Your task to perform on an android device: Search for pizza restaurants on Maps Image 0: 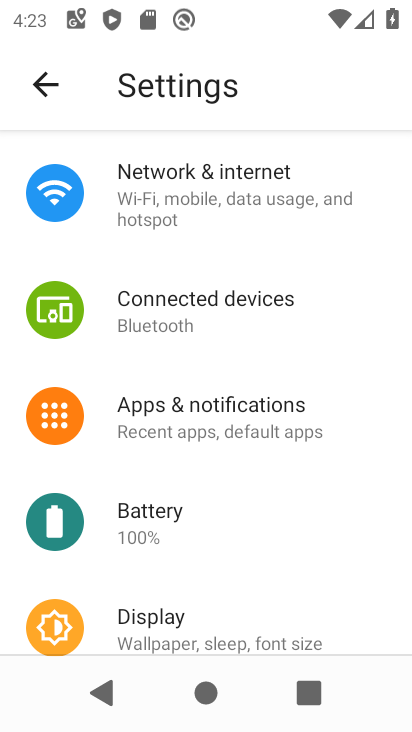
Step 0: press home button
Your task to perform on an android device: Search for pizza restaurants on Maps Image 1: 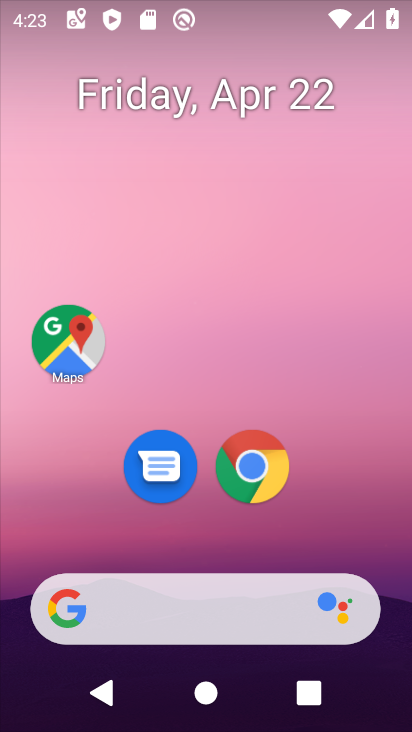
Step 1: drag from (402, 543) to (310, 220)
Your task to perform on an android device: Search for pizza restaurants on Maps Image 2: 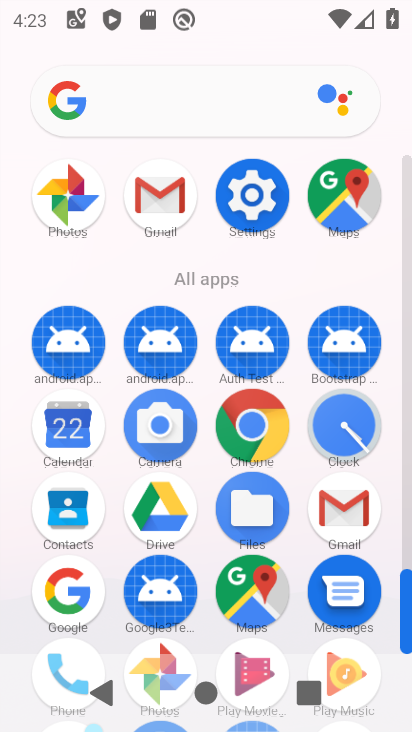
Step 2: click (257, 594)
Your task to perform on an android device: Search for pizza restaurants on Maps Image 3: 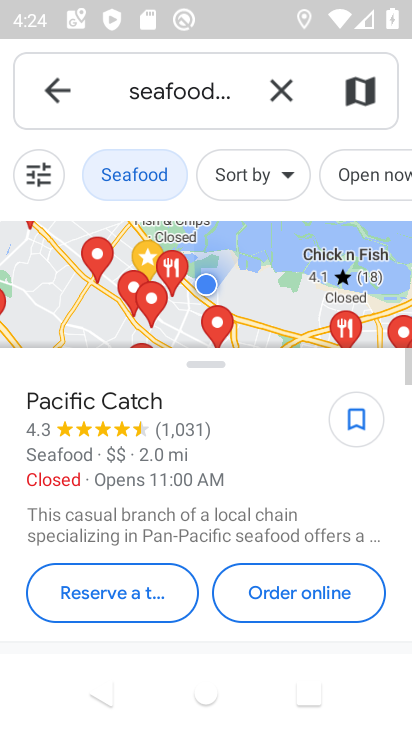
Step 3: click (286, 99)
Your task to perform on an android device: Search for pizza restaurants on Maps Image 4: 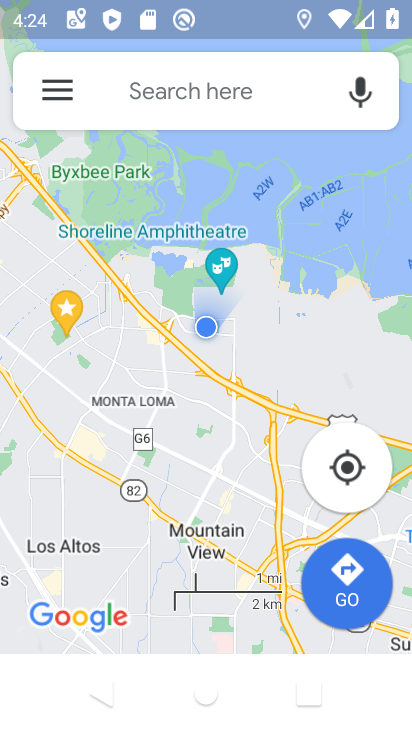
Step 4: click (194, 90)
Your task to perform on an android device: Search for pizza restaurants on Maps Image 5: 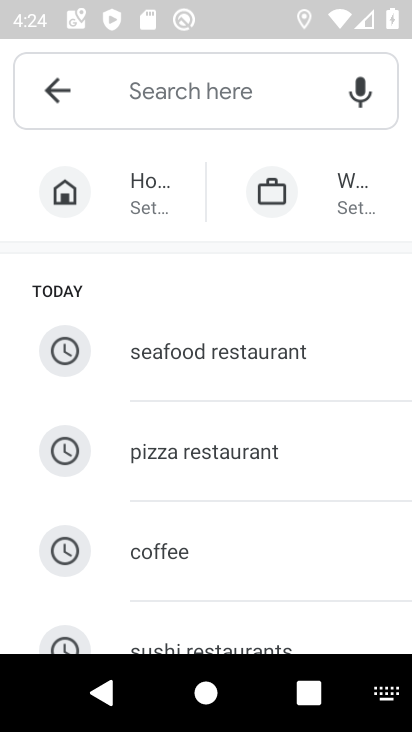
Step 5: click (233, 453)
Your task to perform on an android device: Search for pizza restaurants on Maps Image 6: 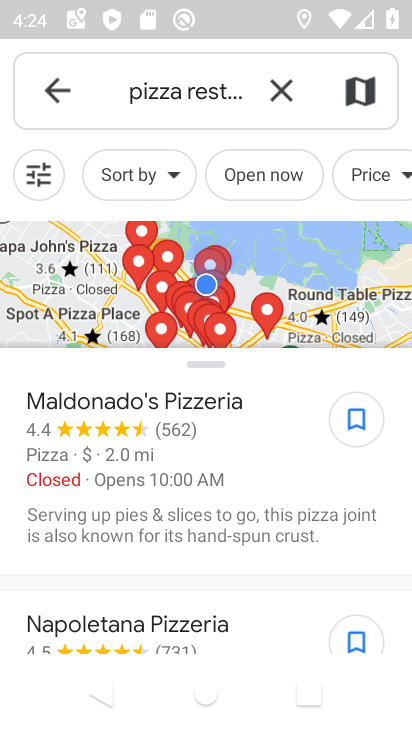
Step 6: task complete